Your task to perform on an android device: clear history in the chrome app Image 0: 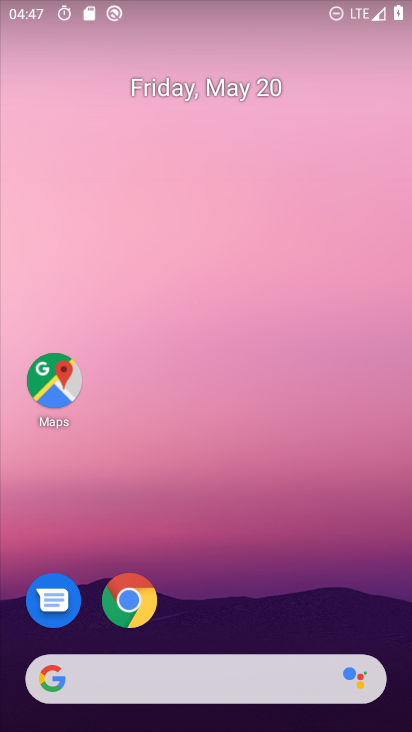
Step 0: click (147, 609)
Your task to perform on an android device: clear history in the chrome app Image 1: 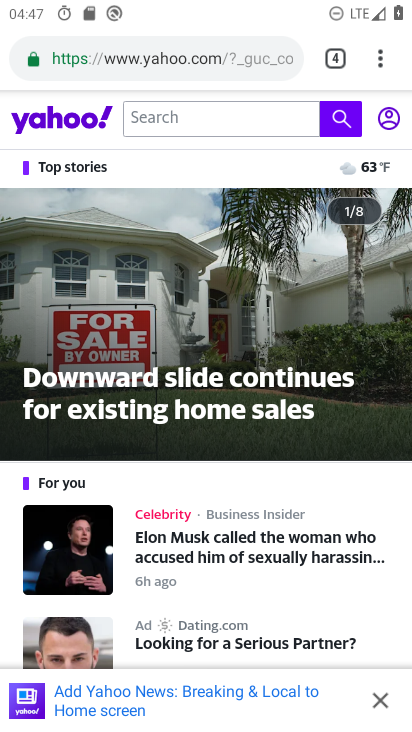
Step 1: drag from (383, 53) to (189, 333)
Your task to perform on an android device: clear history in the chrome app Image 2: 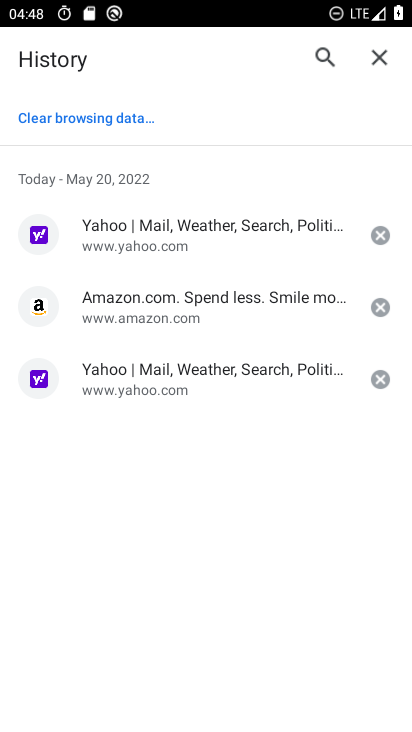
Step 2: click (139, 116)
Your task to perform on an android device: clear history in the chrome app Image 3: 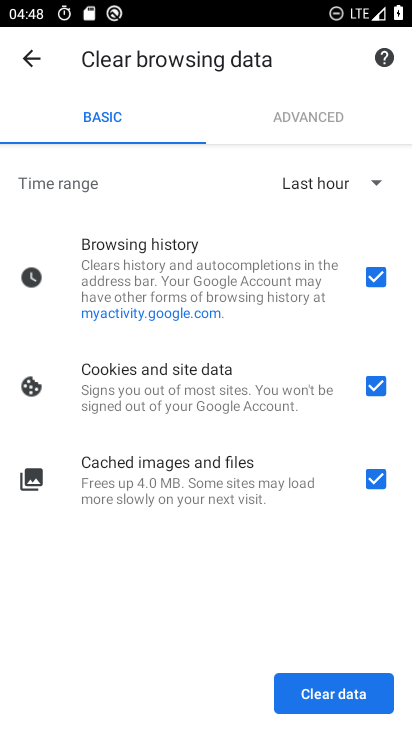
Step 3: click (353, 707)
Your task to perform on an android device: clear history in the chrome app Image 4: 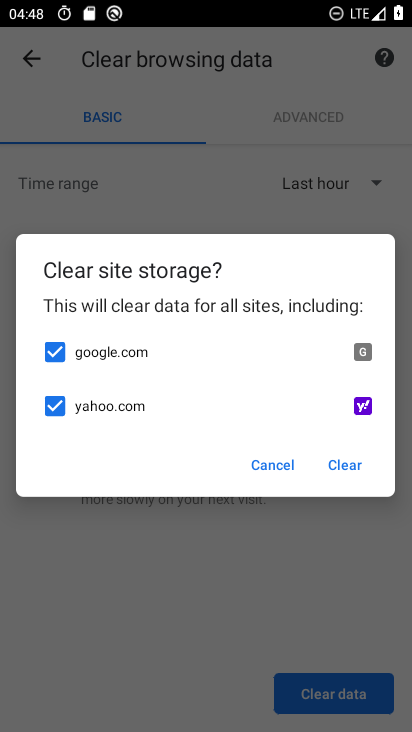
Step 4: click (346, 461)
Your task to perform on an android device: clear history in the chrome app Image 5: 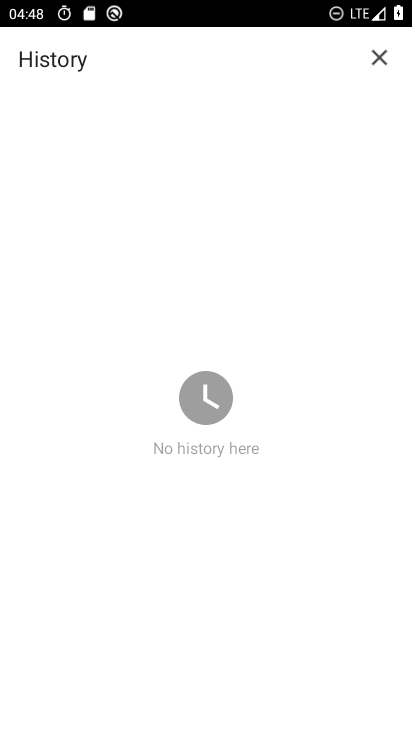
Step 5: task complete